Your task to perform on an android device: turn notification dots on Image 0: 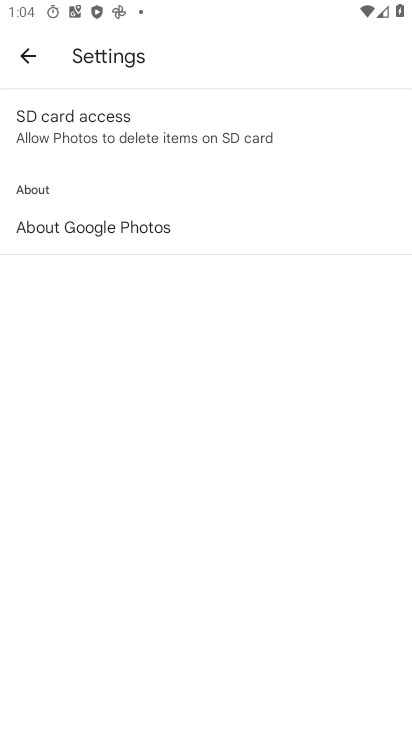
Step 0: press home button
Your task to perform on an android device: turn notification dots on Image 1: 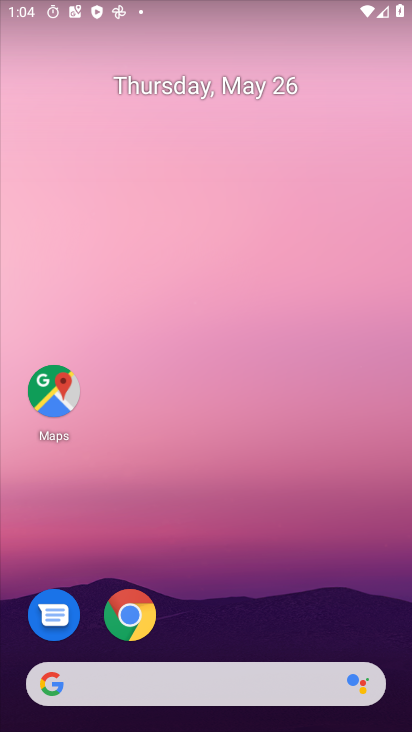
Step 1: drag from (219, 621) to (163, 163)
Your task to perform on an android device: turn notification dots on Image 2: 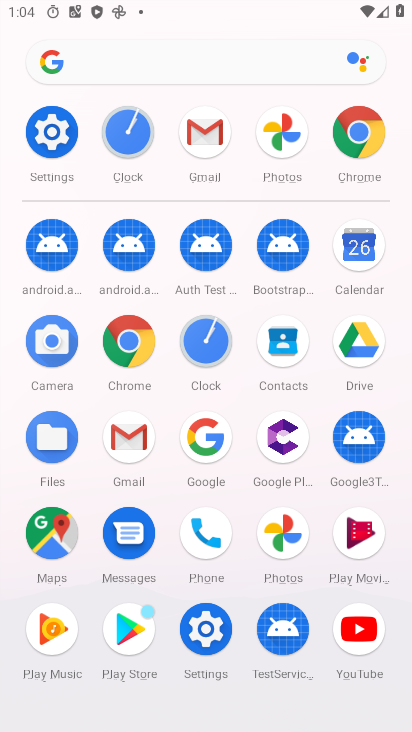
Step 2: click (49, 131)
Your task to perform on an android device: turn notification dots on Image 3: 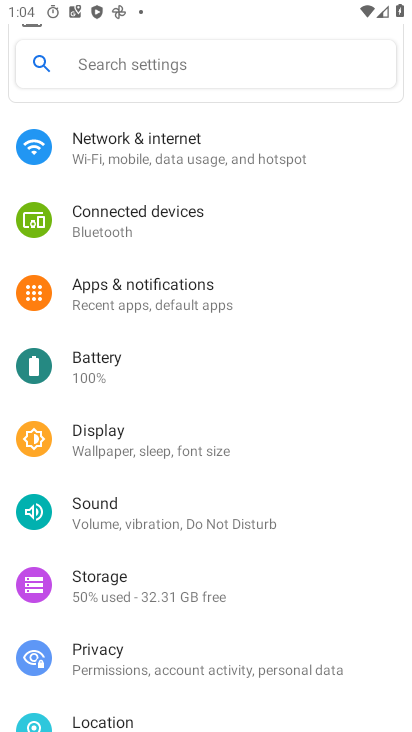
Step 3: click (141, 283)
Your task to perform on an android device: turn notification dots on Image 4: 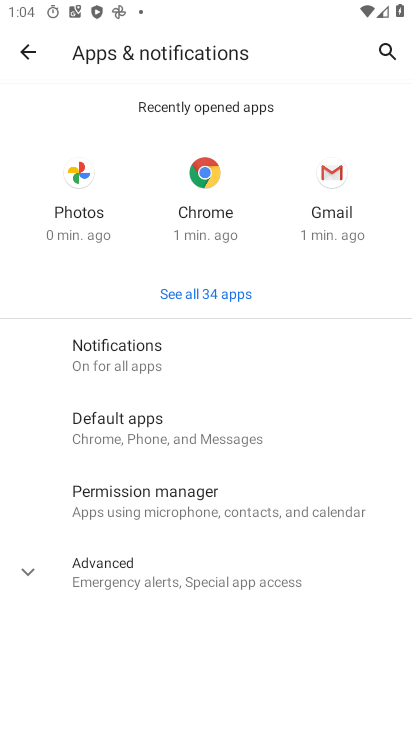
Step 4: click (188, 348)
Your task to perform on an android device: turn notification dots on Image 5: 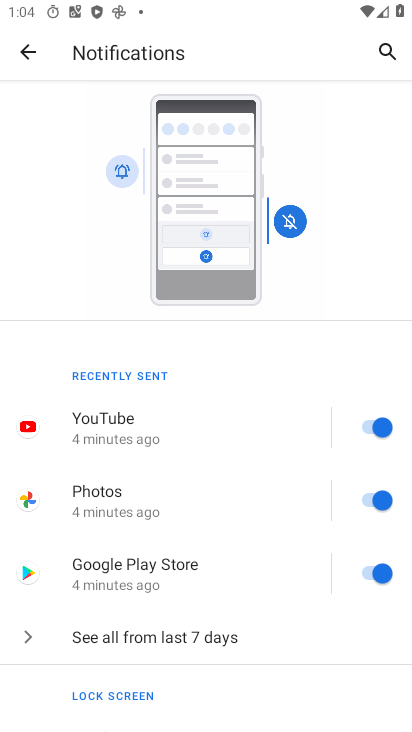
Step 5: drag from (279, 687) to (223, 248)
Your task to perform on an android device: turn notification dots on Image 6: 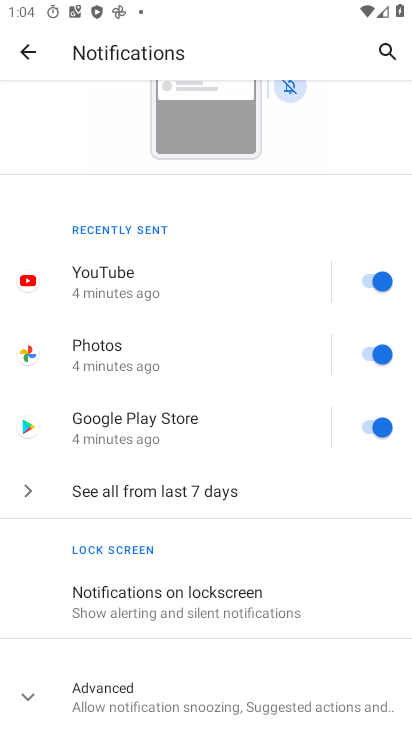
Step 6: drag from (271, 639) to (234, 305)
Your task to perform on an android device: turn notification dots on Image 7: 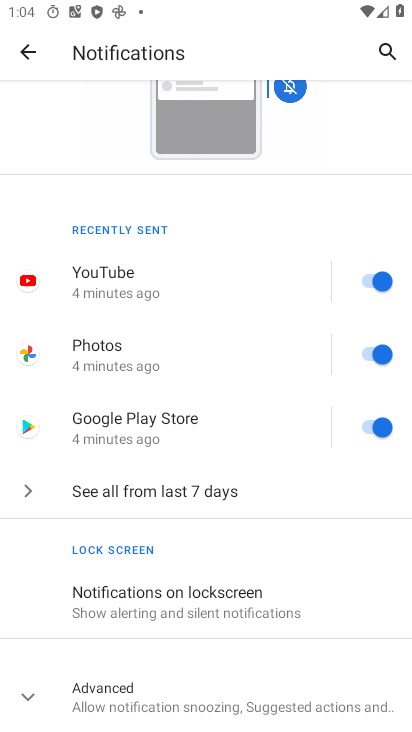
Step 7: click (225, 697)
Your task to perform on an android device: turn notification dots on Image 8: 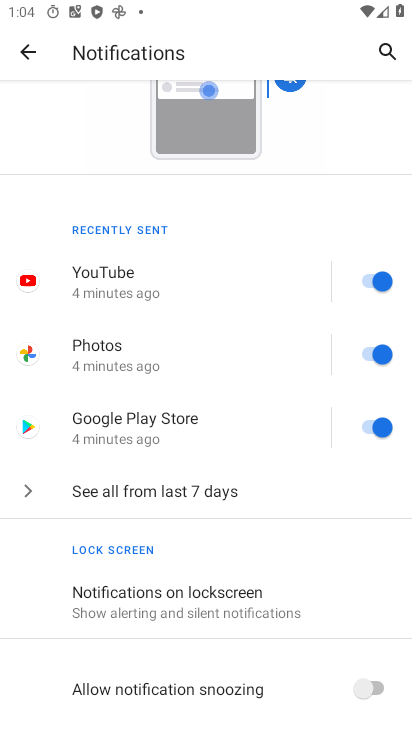
Step 8: task complete